Your task to perform on an android device: change the clock display to digital Image 0: 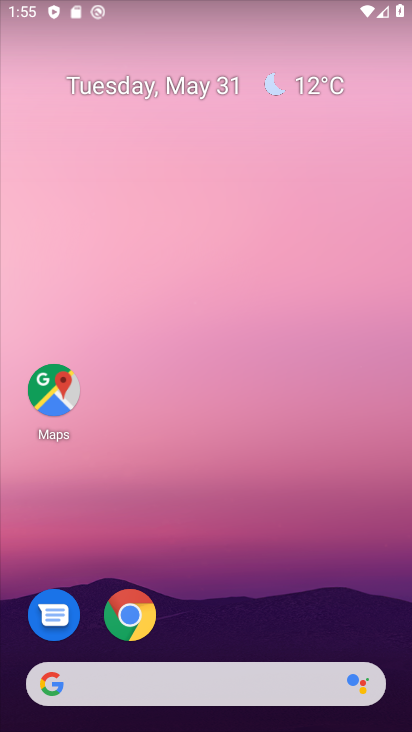
Step 0: drag from (195, 685) to (293, 162)
Your task to perform on an android device: change the clock display to digital Image 1: 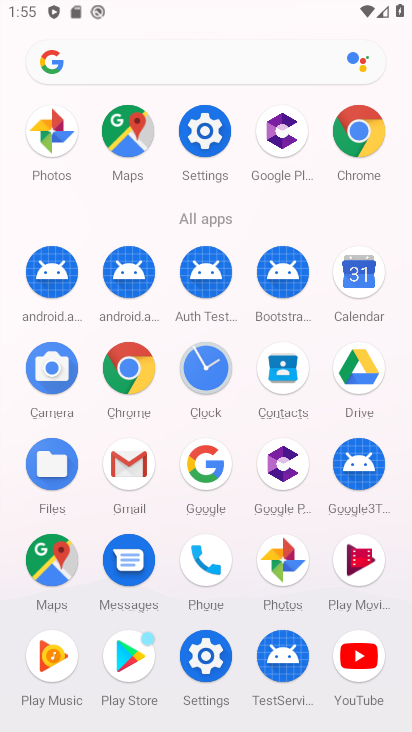
Step 1: click (198, 369)
Your task to perform on an android device: change the clock display to digital Image 2: 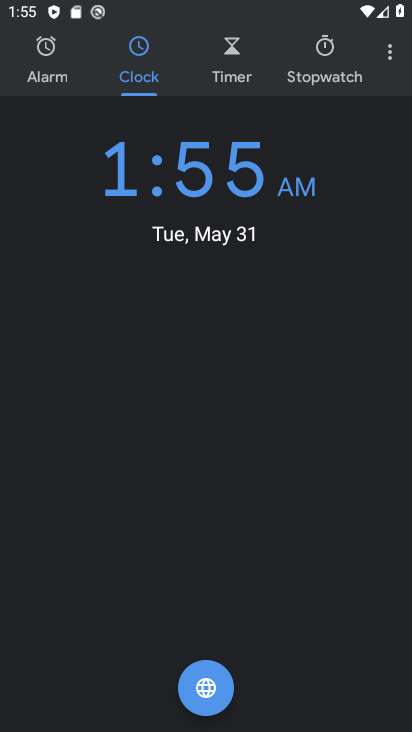
Step 2: click (380, 59)
Your task to perform on an android device: change the clock display to digital Image 3: 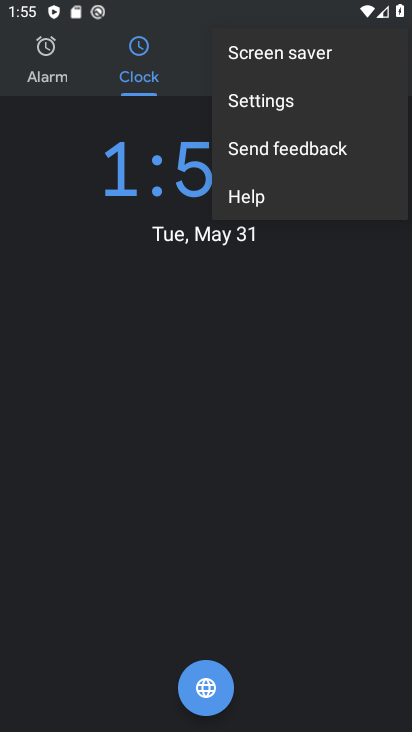
Step 3: click (321, 109)
Your task to perform on an android device: change the clock display to digital Image 4: 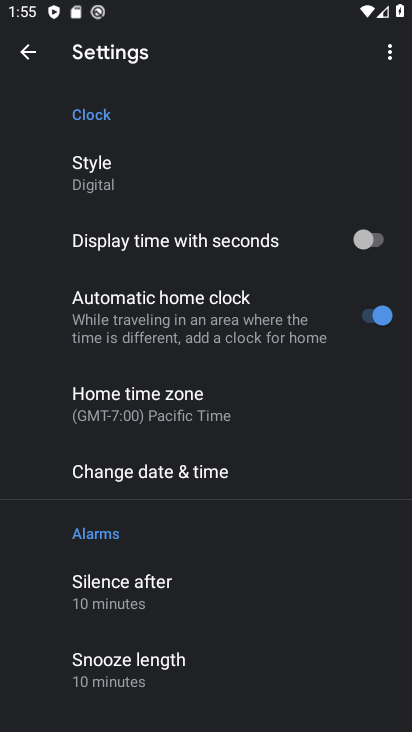
Step 4: click (183, 172)
Your task to perform on an android device: change the clock display to digital Image 5: 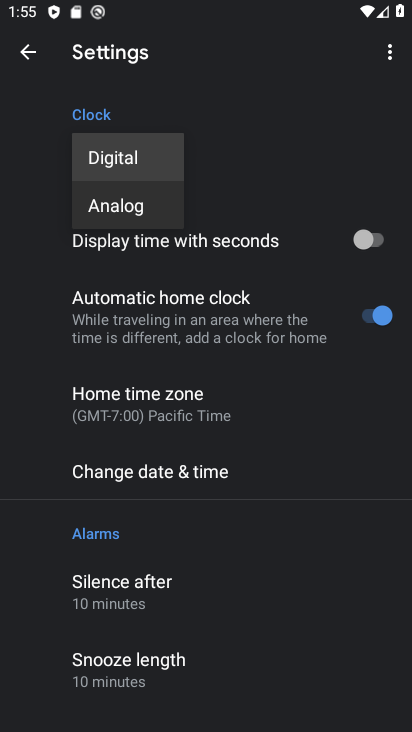
Step 5: task complete